Your task to perform on an android device: What's the weather? Image 0: 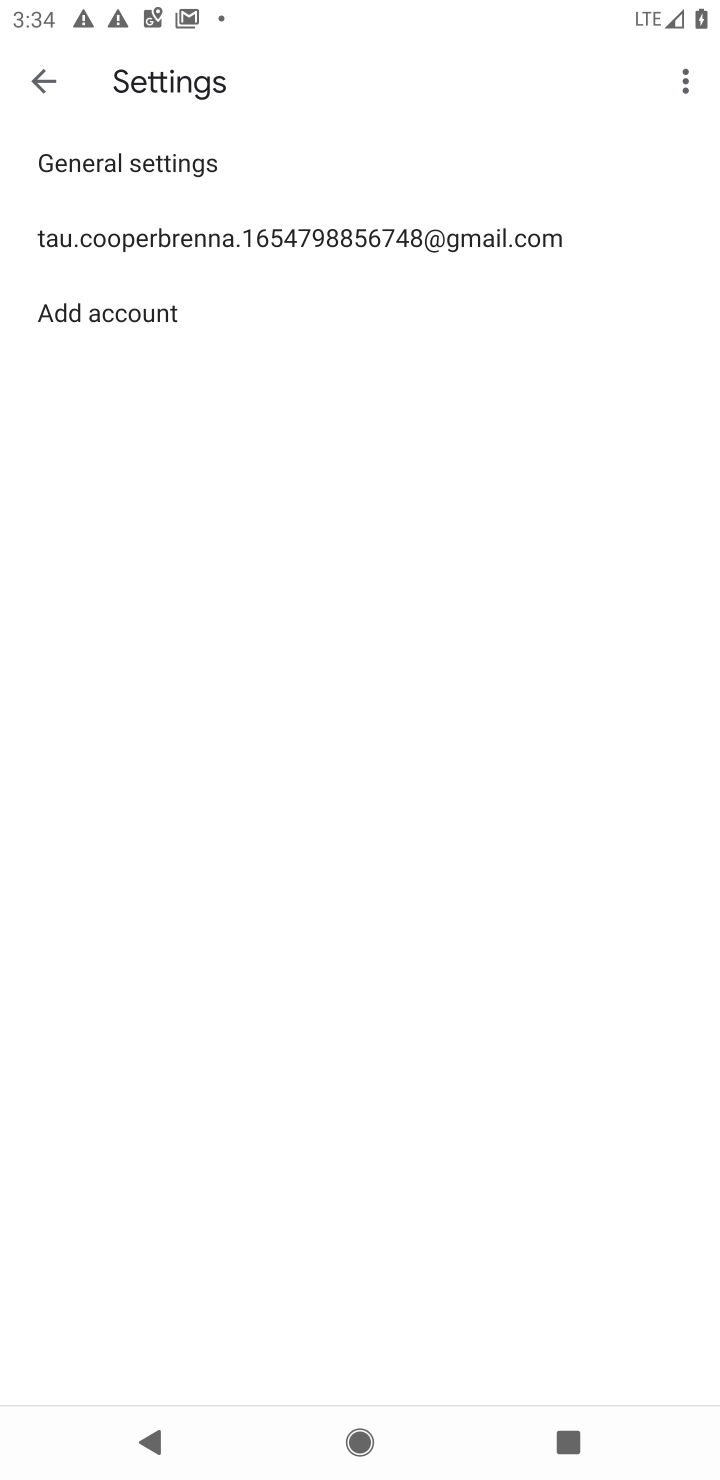
Step 0: press home button
Your task to perform on an android device: What's the weather? Image 1: 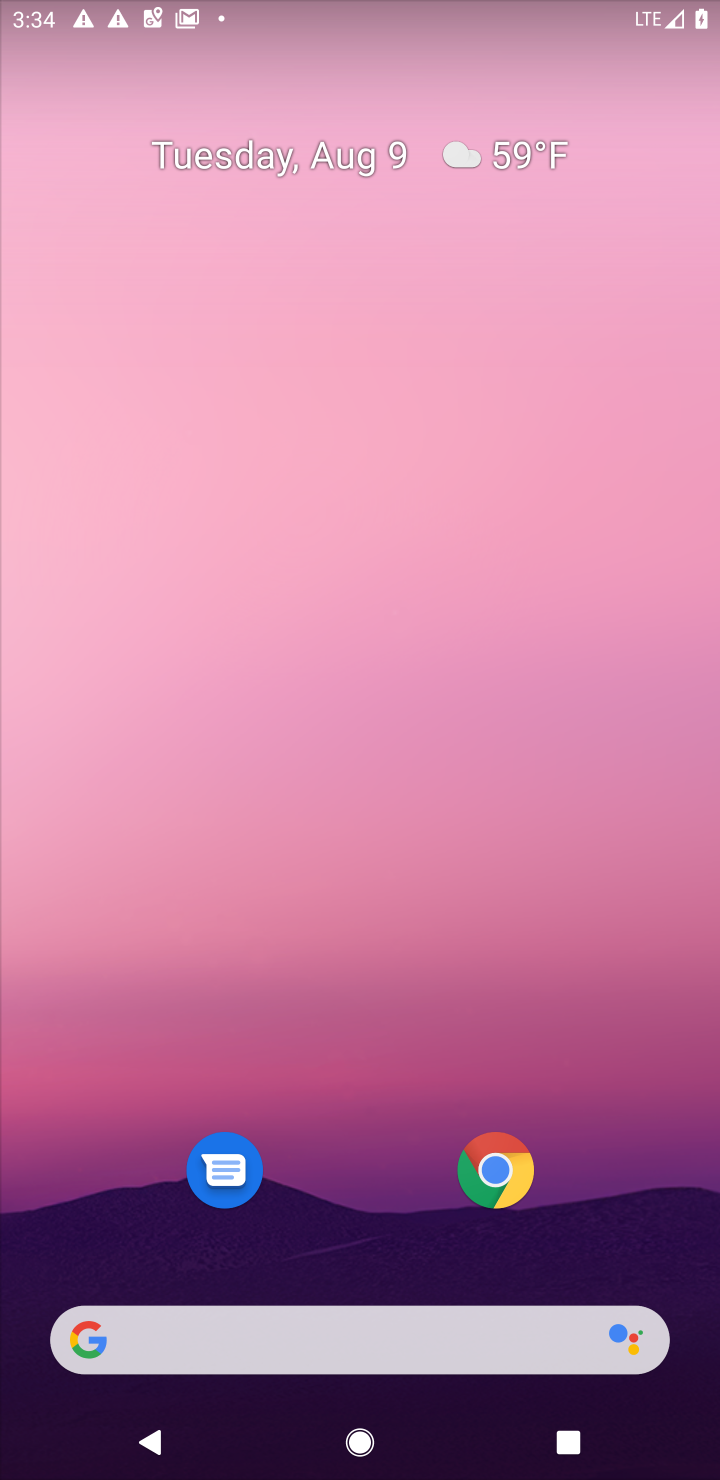
Step 1: click (88, 1341)
Your task to perform on an android device: What's the weather? Image 2: 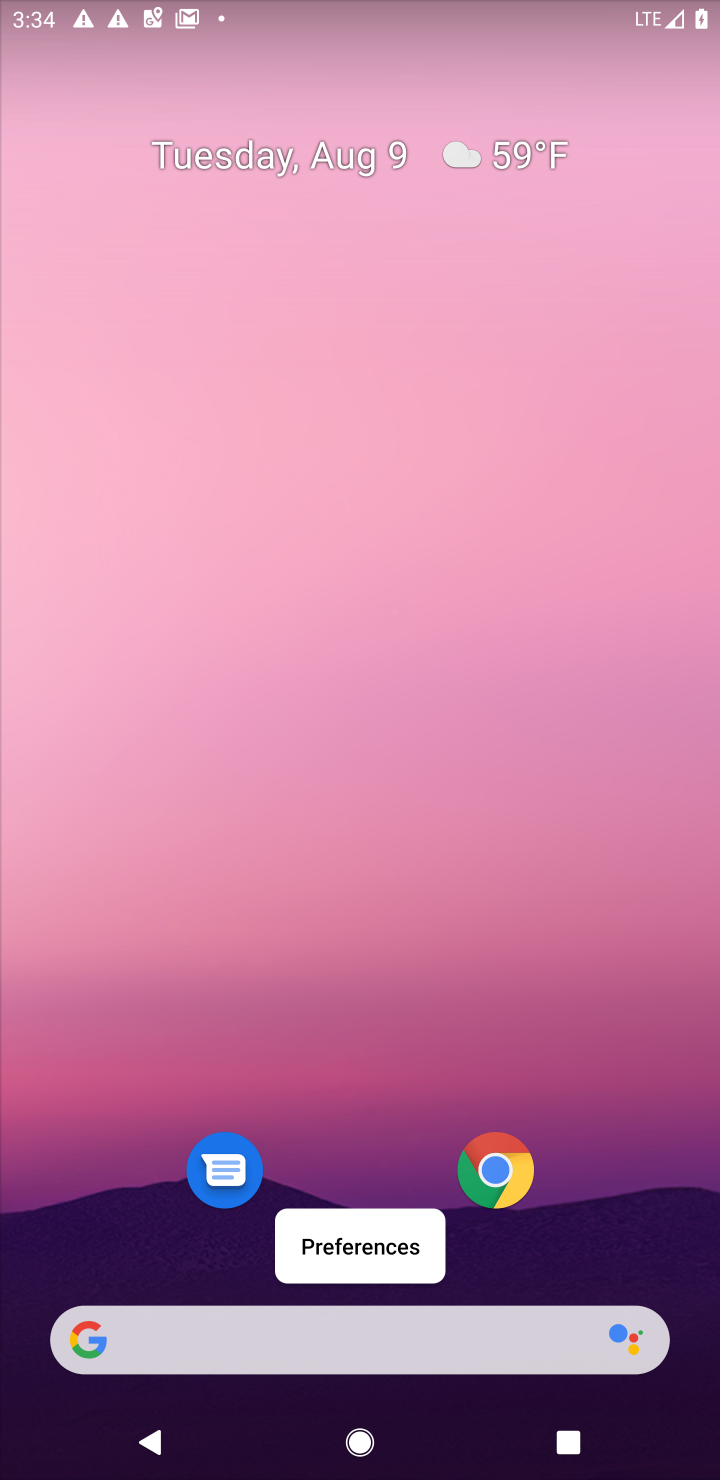
Step 2: click (82, 1336)
Your task to perform on an android device: What's the weather? Image 3: 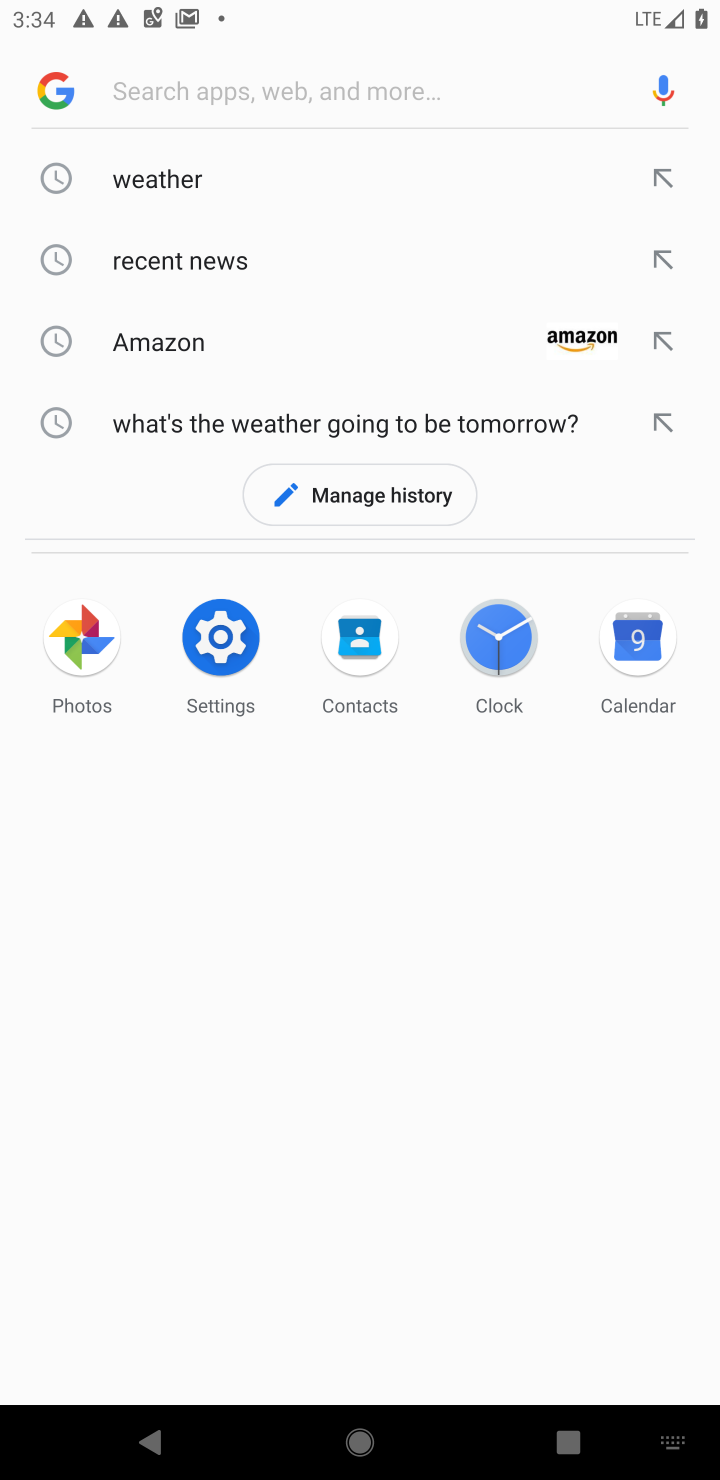
Step 3: click (163, 184)
Your task to perform on an android device: What's the weather? Image 4: 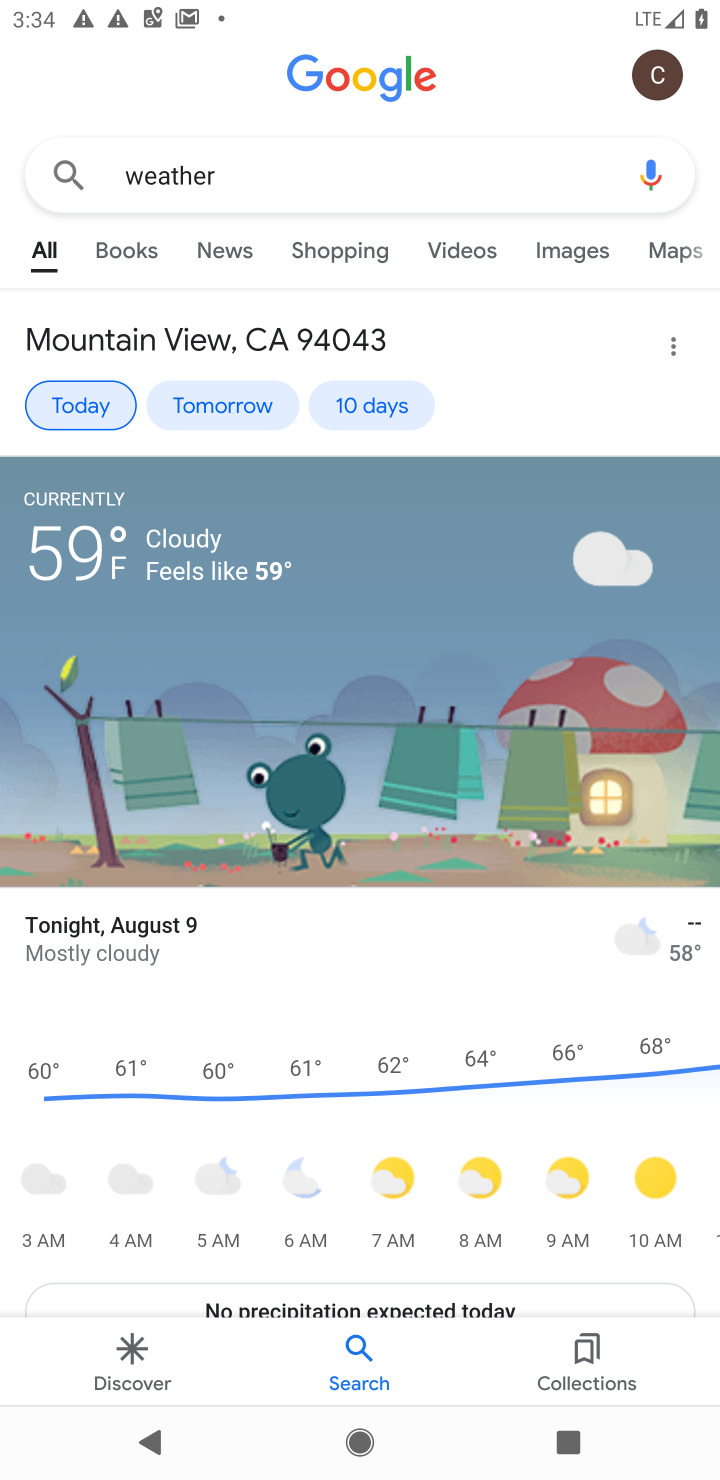
Step 4: task complete